Your task to perform on an android device: Turn on the flashlight Image 0: 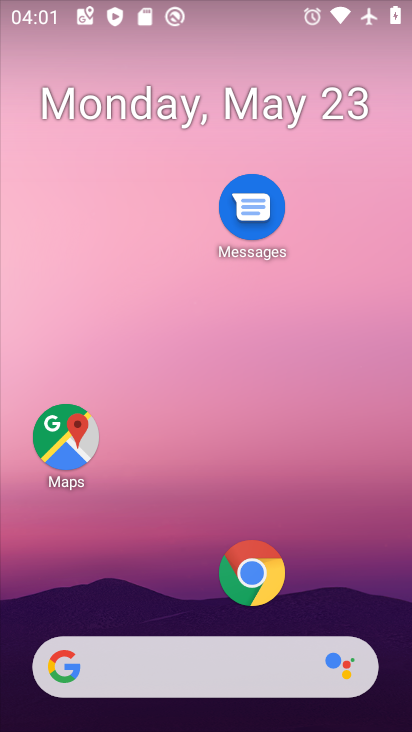
Step 0: drag from (379, 566) to (367, 12)
Your task to perform on an android device: Turn on the flashlight Image 1: 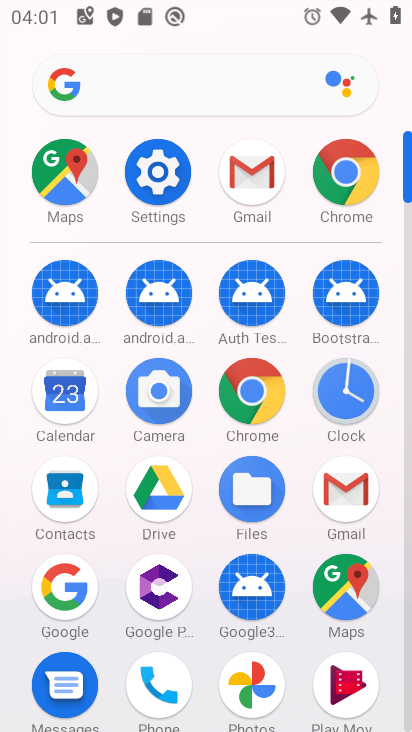
Step 1: click (162, 177)
Your task to perform on an android device: Turn on the flashlight Image 2: 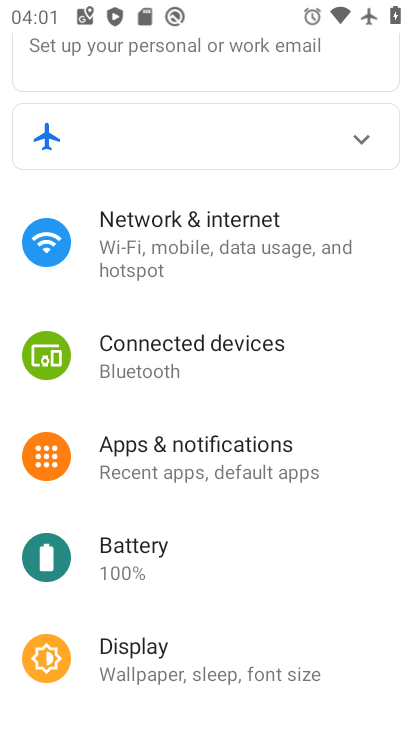
Step 2: task complete